Your task to perform on an android device: find which apps use the phone's location Image 0: 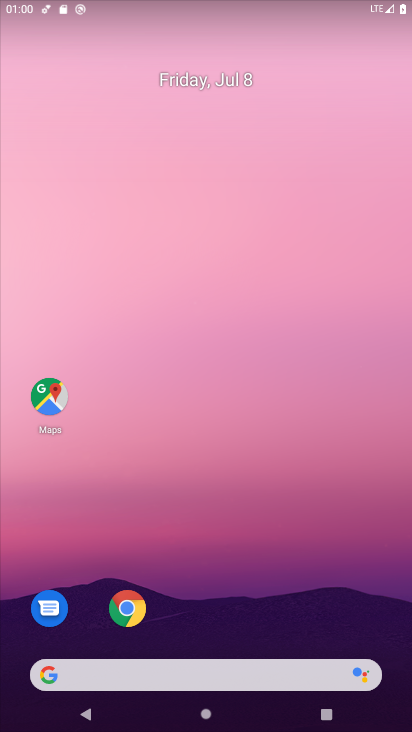
Step 0: drag from (193, 627) to (203, 310)
Your task to perform on an android device: find which apps use the phone's location Image 1: 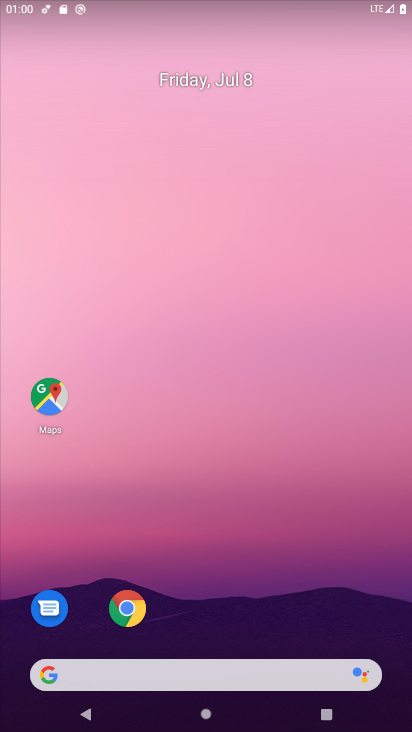
Step 1: drag from (205, 630) to (244, 215)
Your task to perform on an android device: find which apps use the phone's location Image 2: 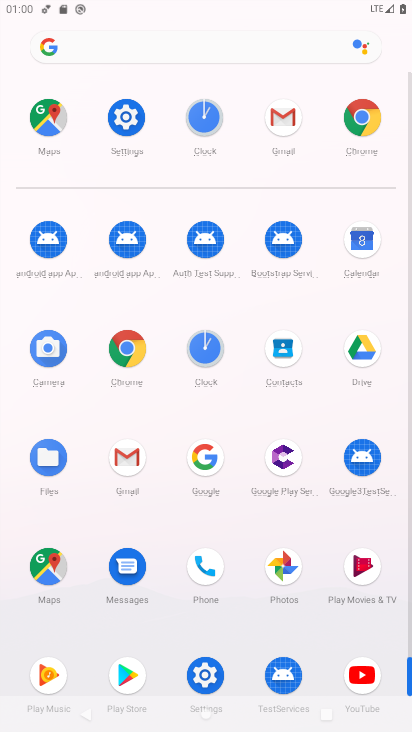
Step 2: click (123, 113)
Your task to perform on an android device: find which apps use the phone's location Image 3: 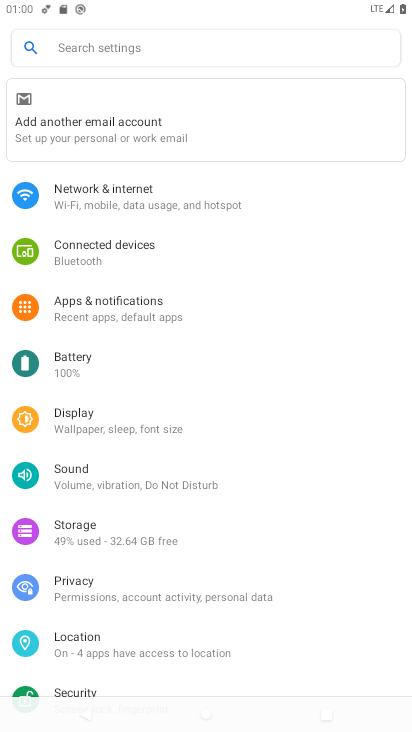
Step 3: click (102, 641)
Your task to perform on an android device: find which apps use the phone's location Image 4: 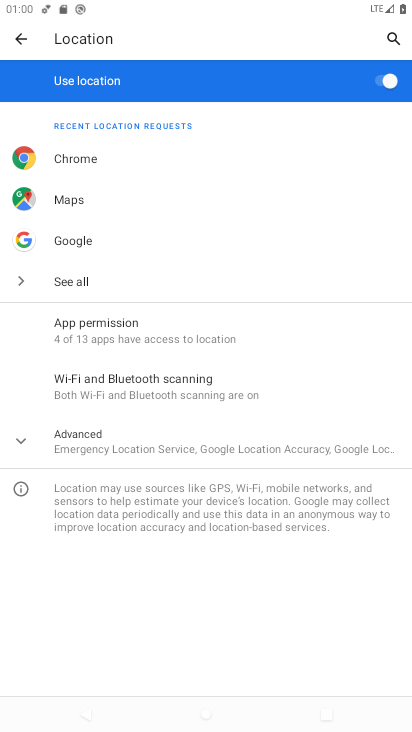
Step 4: task complete